Your task to perform on an android device: turn off priority inbox in the gmail app Image 0: 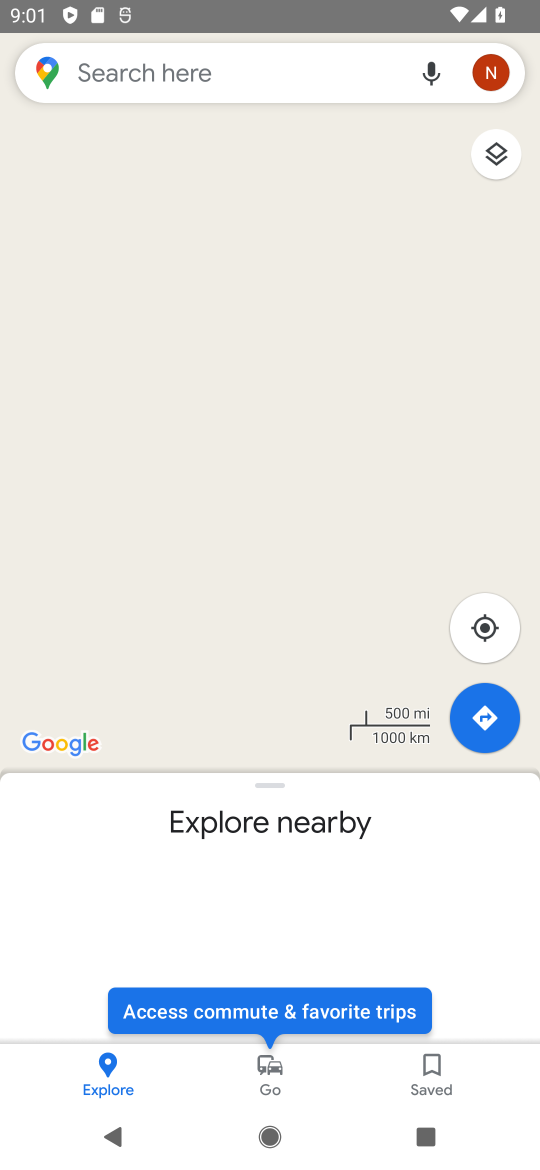
Step 0: press home button
Your task to perform on an android device: turn off priority inbox in the gmail app Image 1: 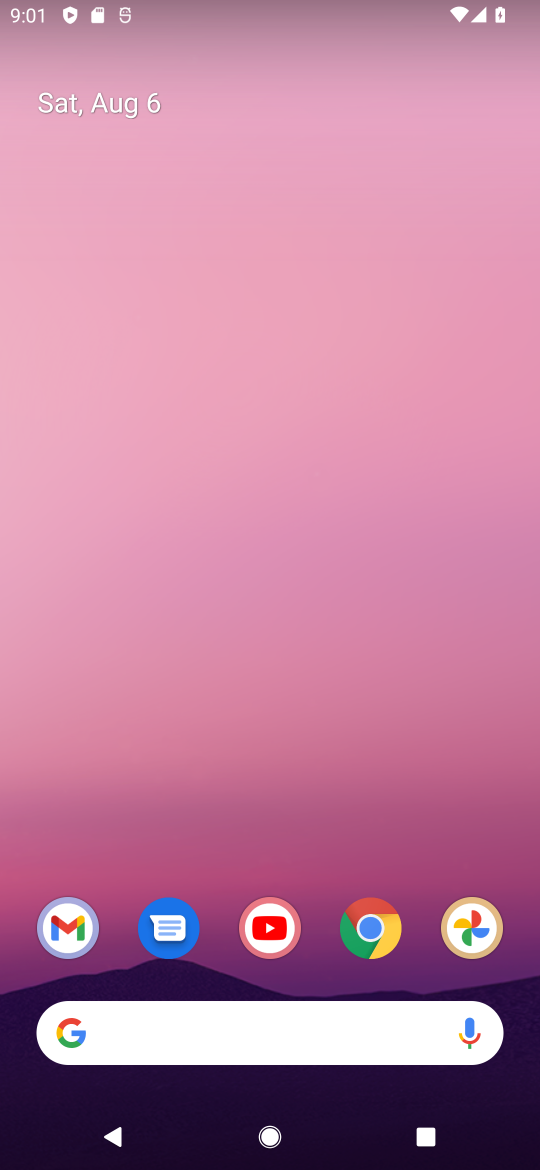
Step 1: click (51, 925)
Your task to perform on an android device: turn off priority inbox in the gmail app Image 2: 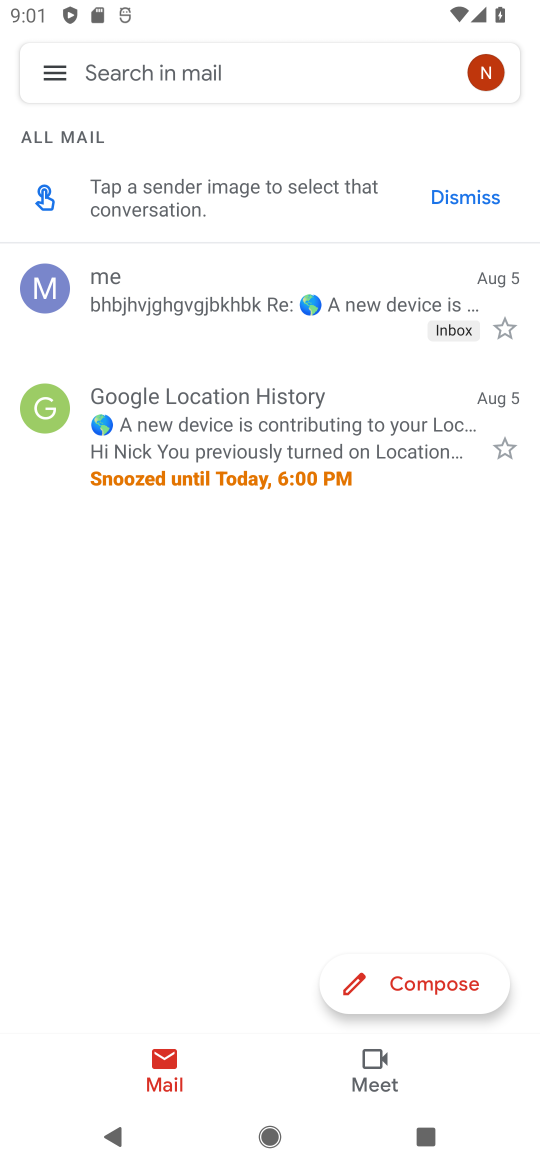
Step 2: click (53, 65)
Your task to perform on an android device: turn off priority inbox in the gmail app Image 3: 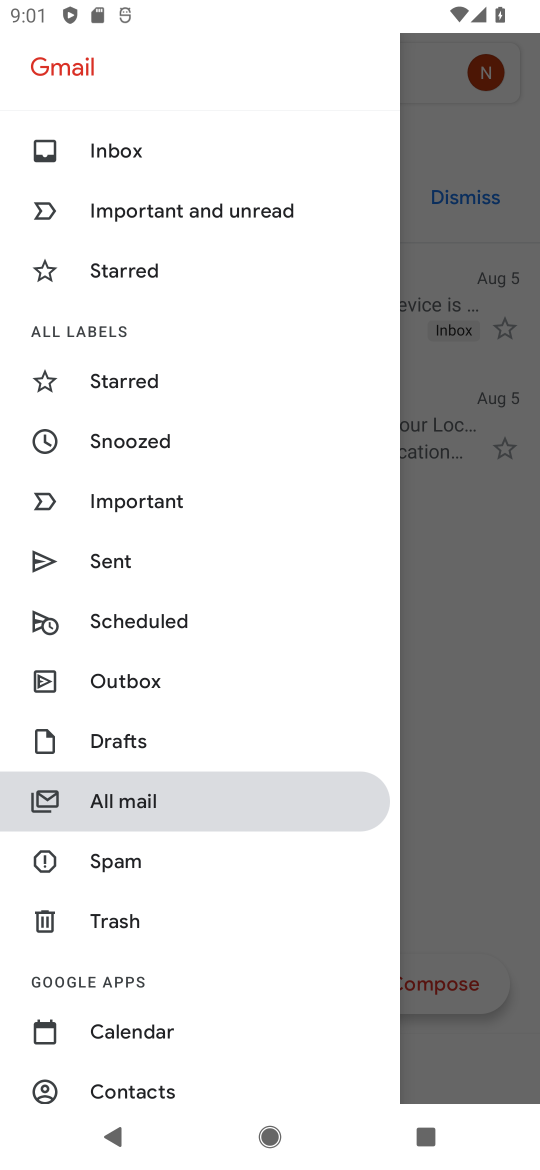
Step 3: drag from (192, 979) to (190, 228)
Your task to perform on an android device: turn off priority inbox in the gmail app Image 4: 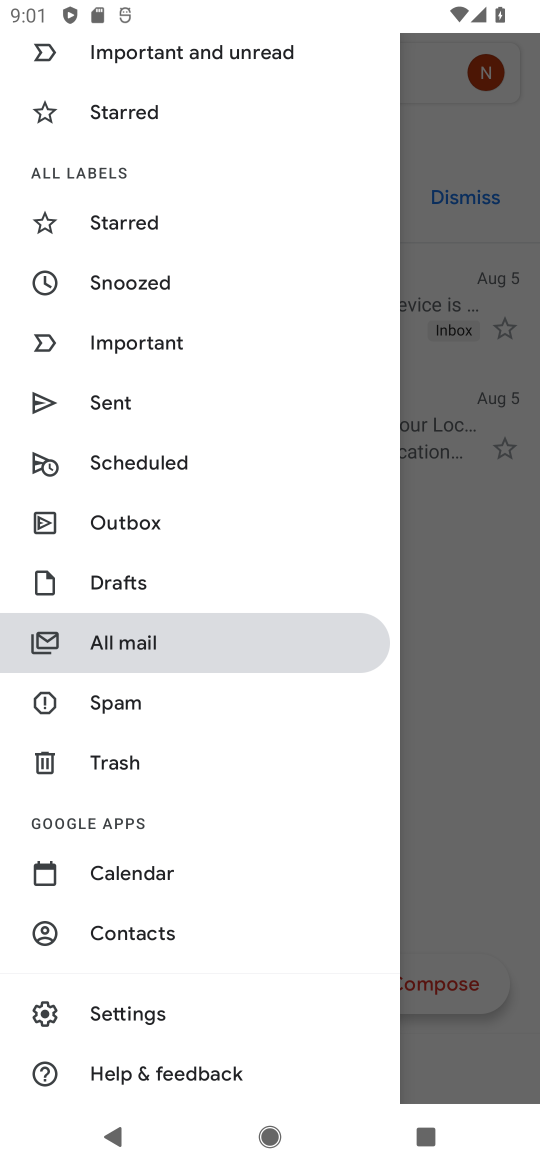
Step 4: click (138, 1008)
Your task to perform on an android device: turn off priority inbox in the gmail app Image 5: 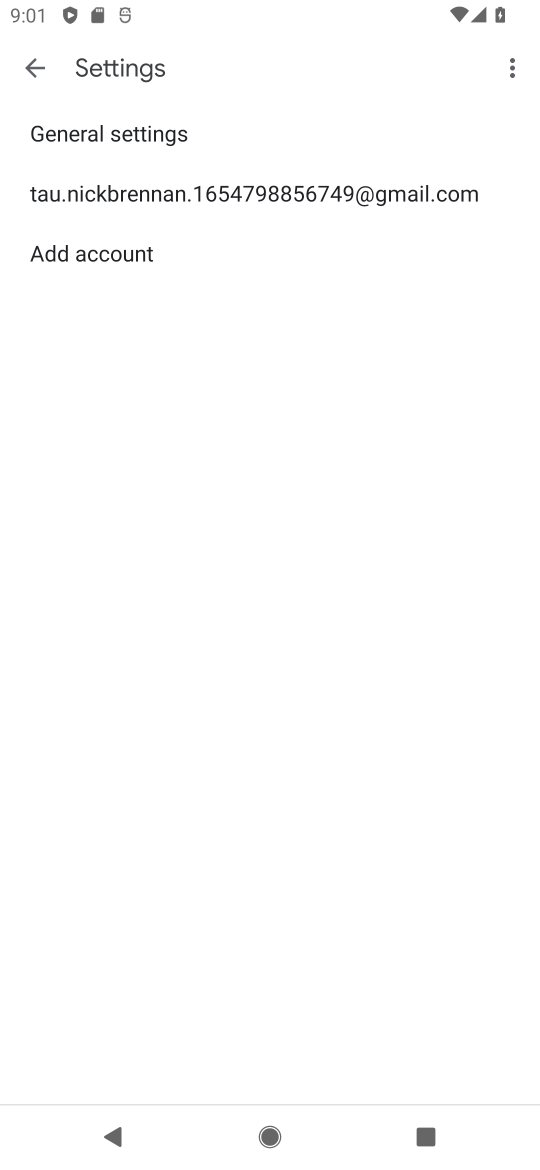
Step 5: click (105, 188)
Your task to perform on an android device: turn off priority inbox in the gmail app Image 6: 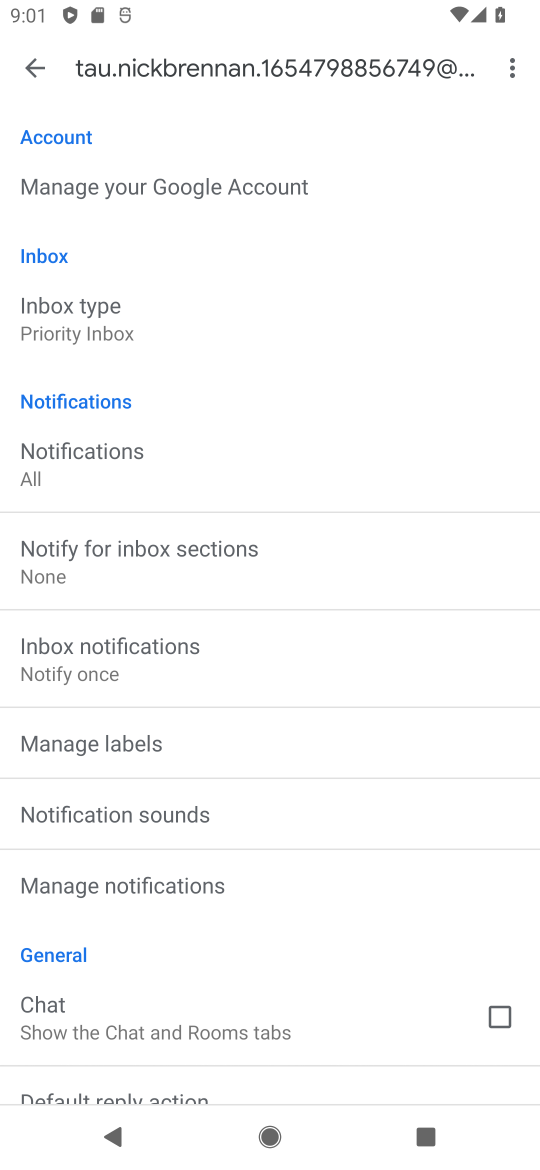
Step 6: click (73, 316)
Your task to perform on an android device: turn off priority inbox in the gmail app Image 7: 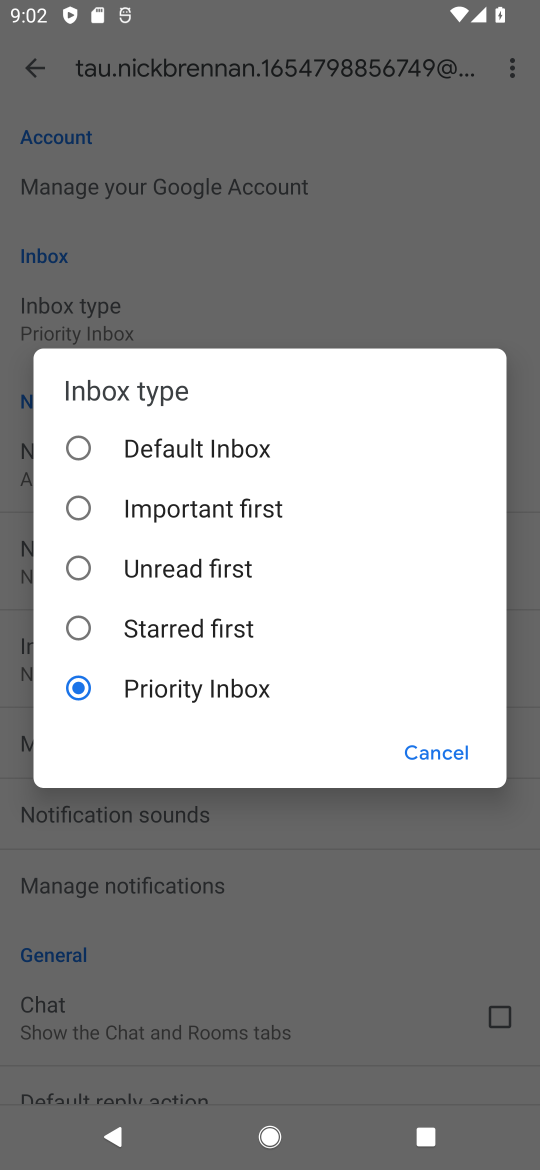
Step 7: click (77, 440)
Your task to perform on an android device: turn off priority inbox in the gmail app Image 8: 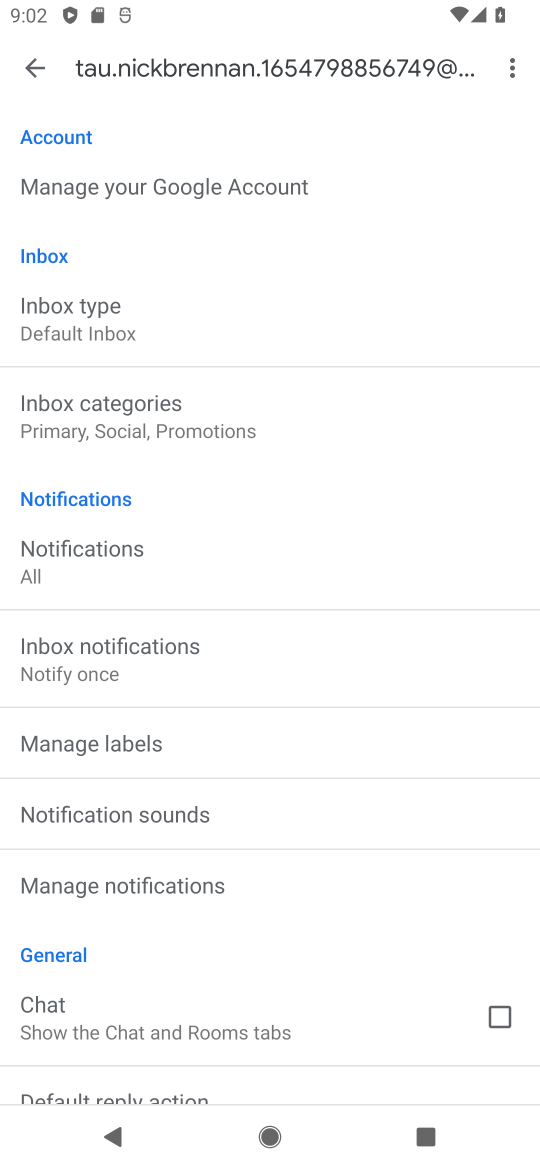
Step 8: task complete